Your task to perform on an android device: turn on location history Image 0: 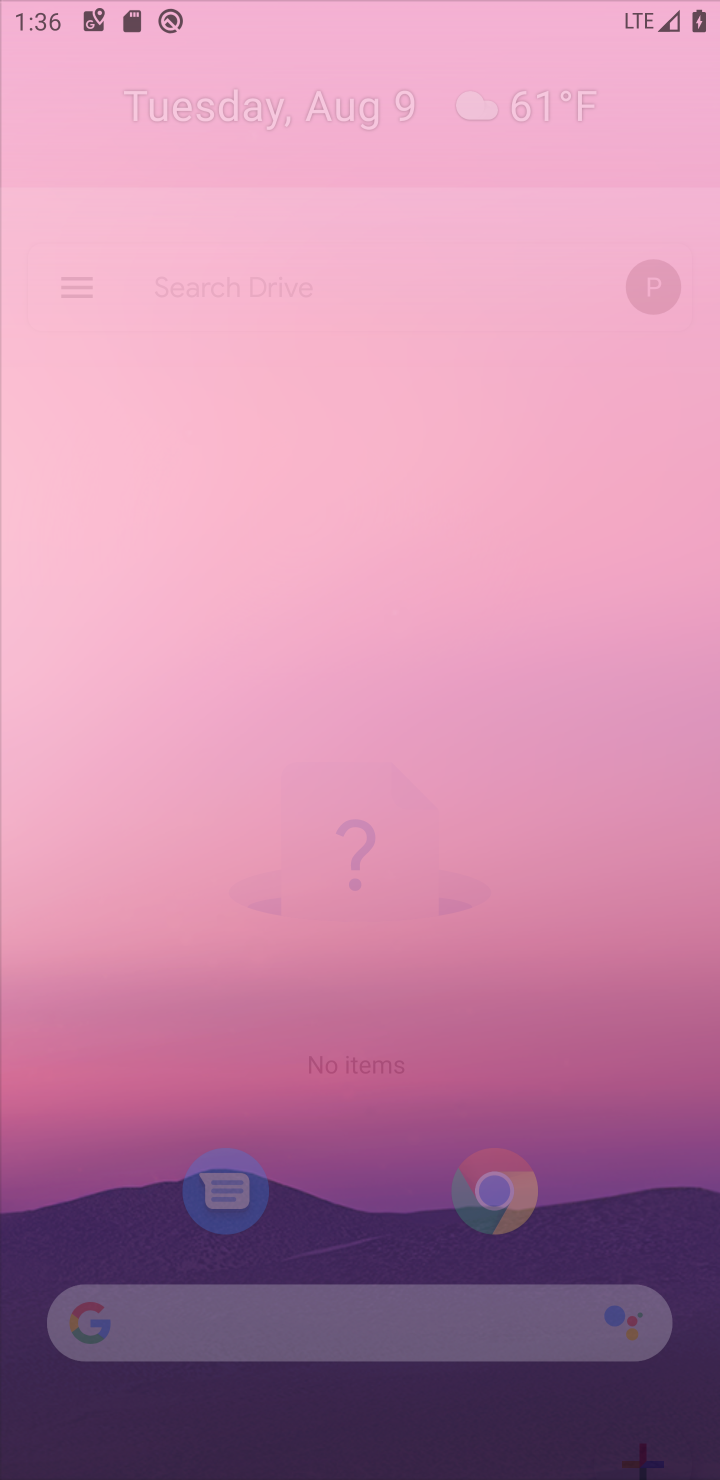
Step 0: press home button
Your task to perform on an android device: turn on location history Image 1: 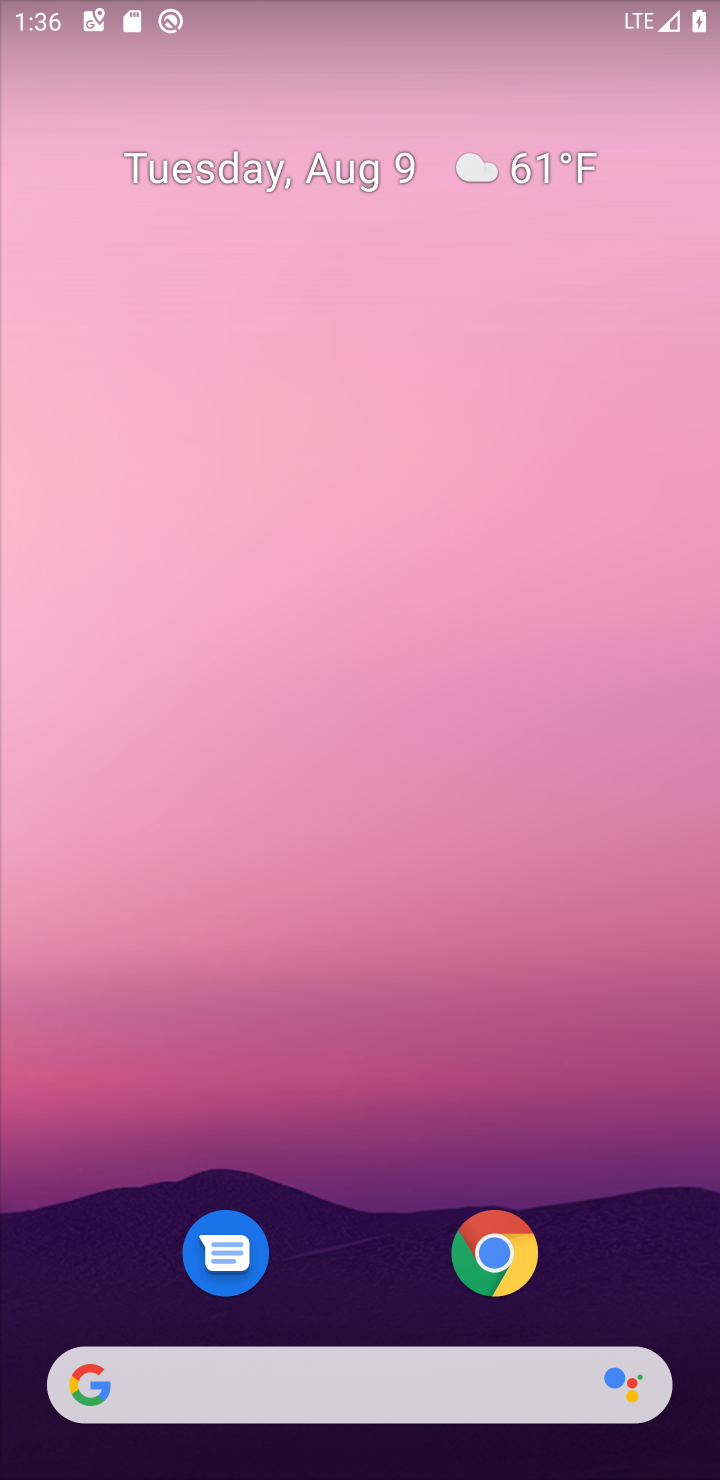
Step 1: drag from (609, 1061) to (237, 29)
Your task to perform on an android device: turn on location history Image 2: 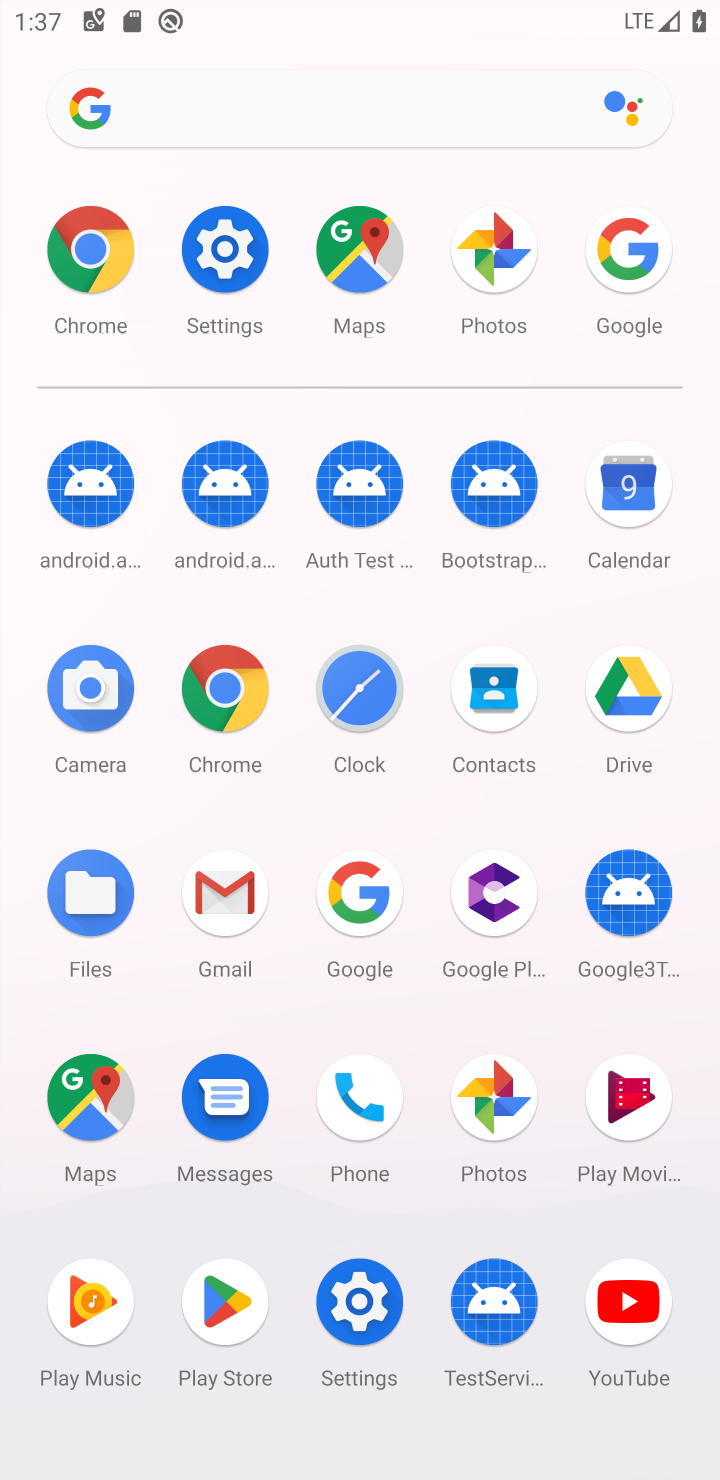
Step 2: click (388, 1293)
Your task to perform on an android device: turn on location history Image 3: 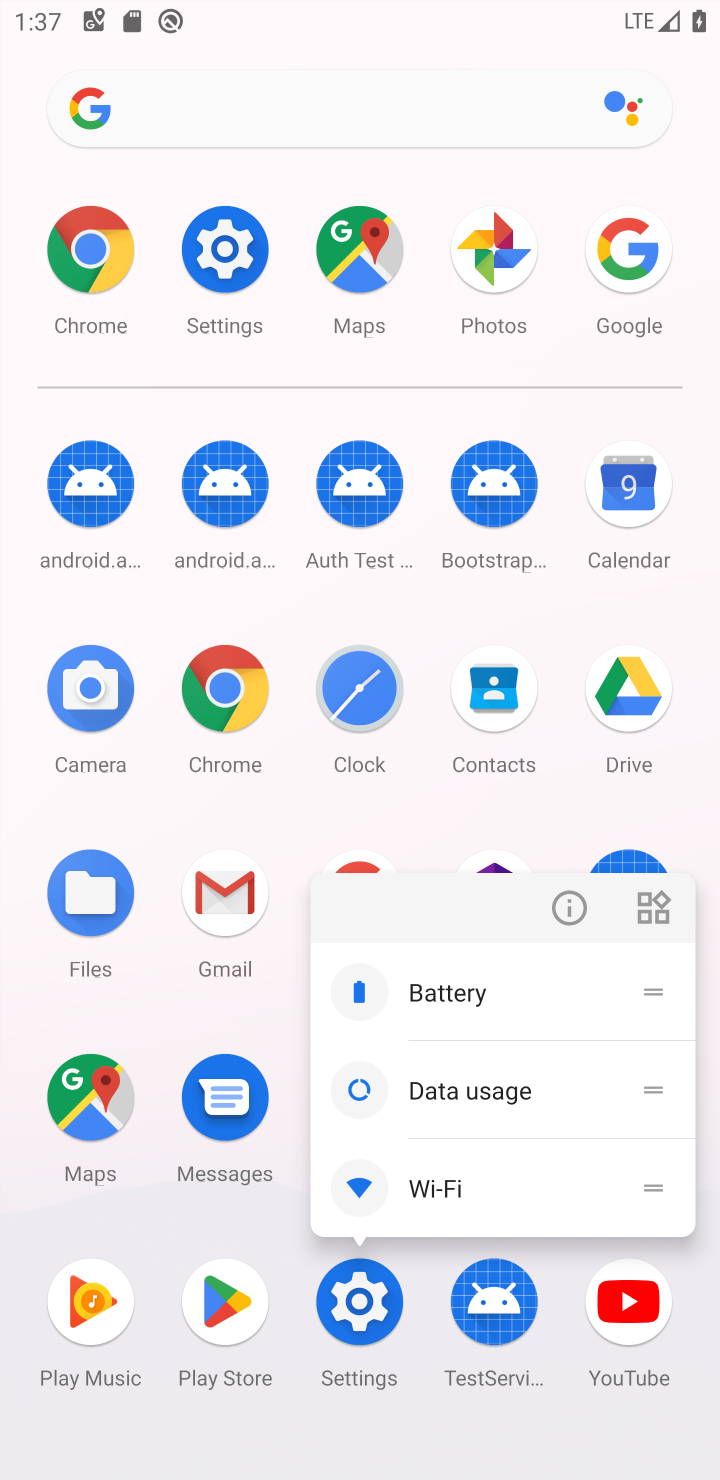
Step 3: click (371, 1295)
Your task to perform on an android device: turn on location history Image 4: 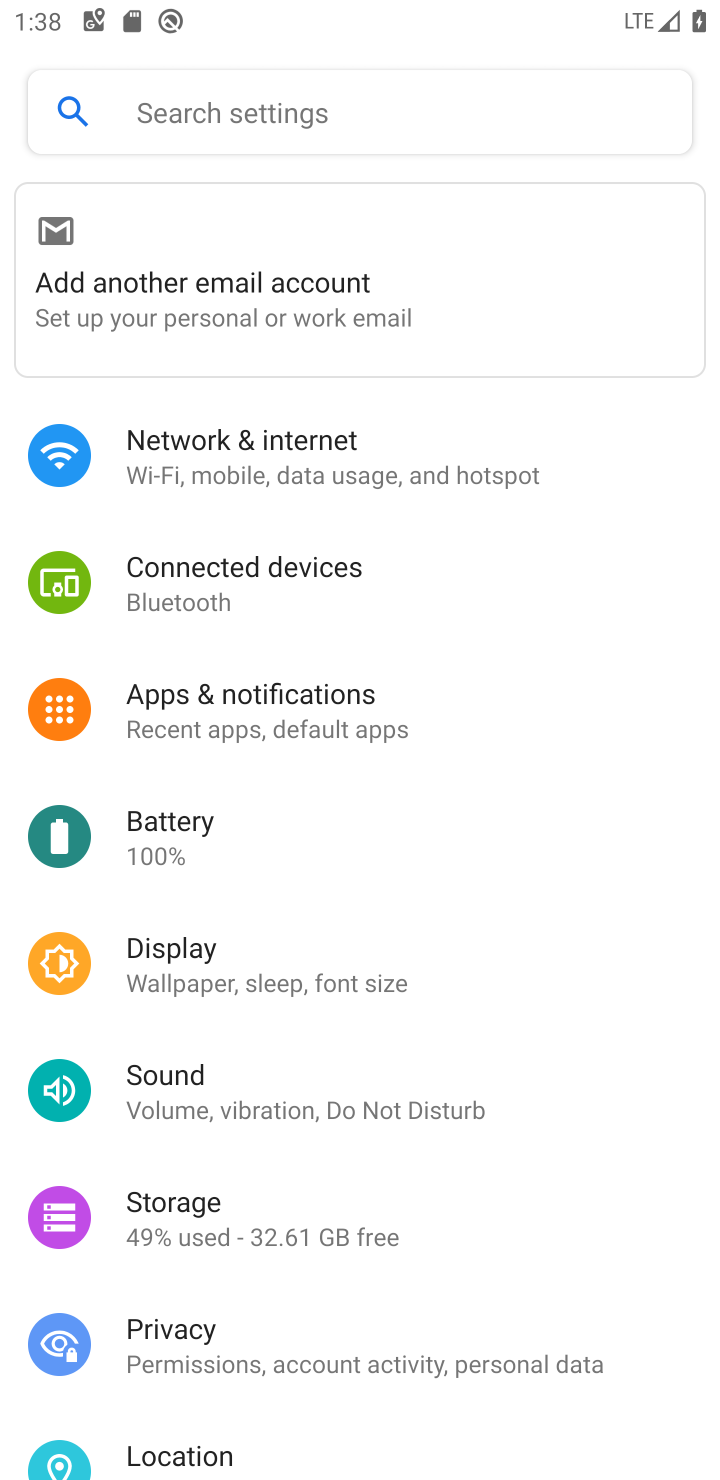
Step 4: click (143, 1460)
Your task to perform on an android device: turn on location history Image 5: 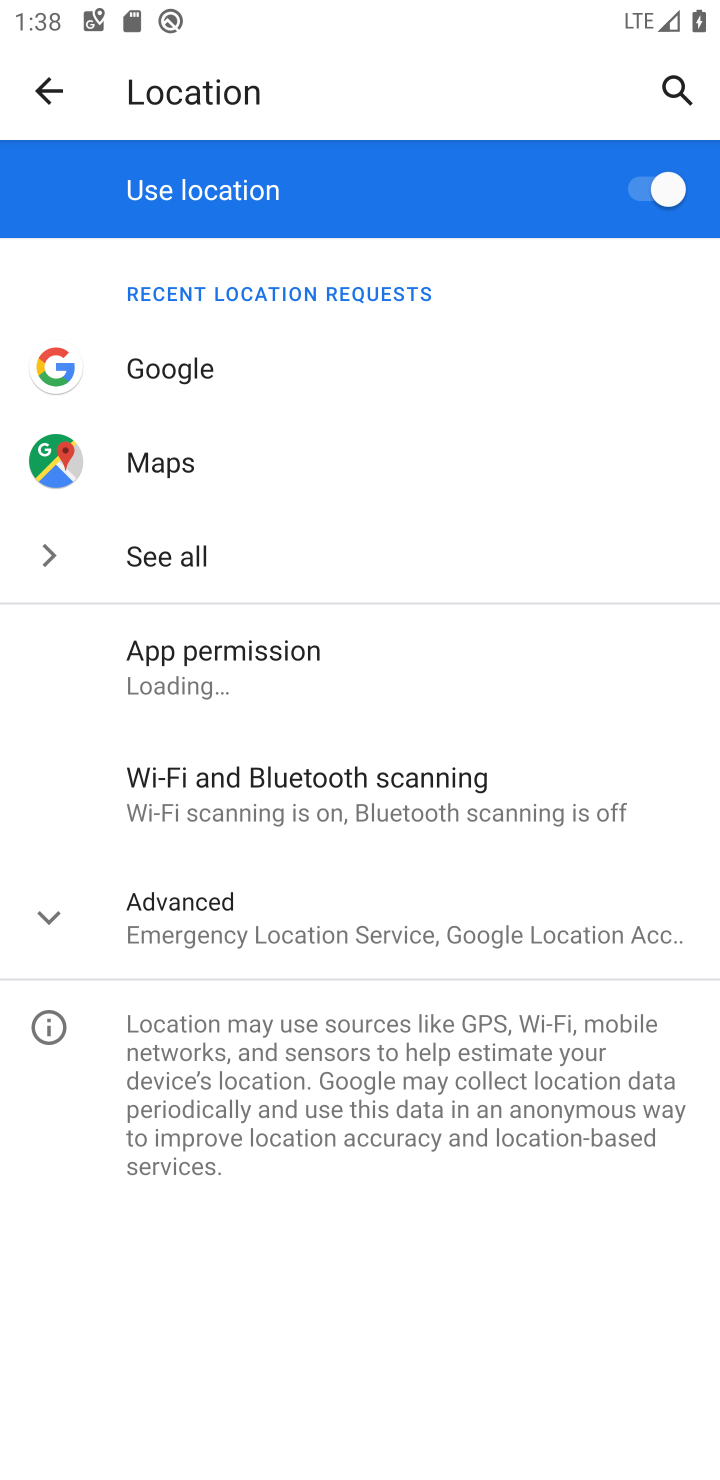
Step 5: click (74, 926)
Your task to perform on an android device: turn on location history Image 6: 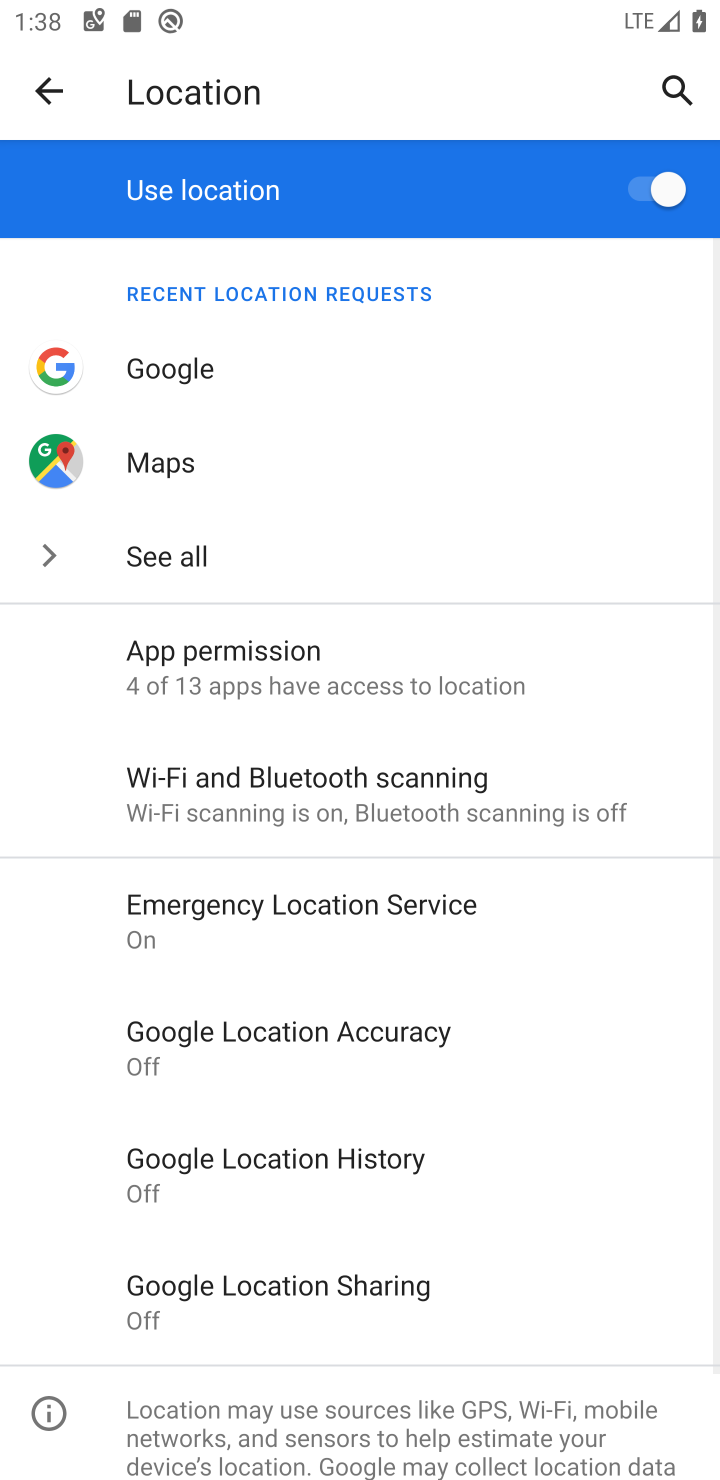
Step 6: click (268, 1154)
Your task to perform on an android device: turn on location history Image 7: 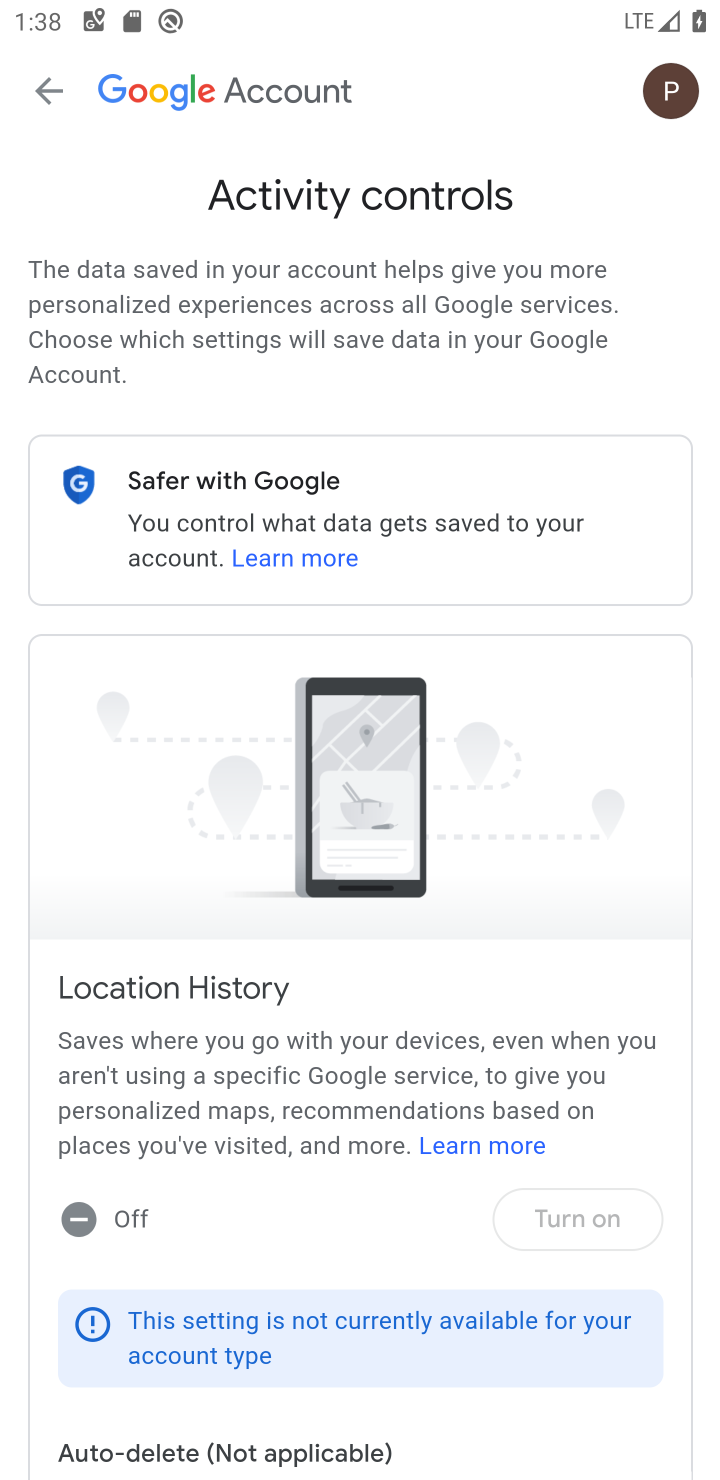
Step 7: task complete